Your task to perform on an android device: see sites visited before in the chrome app Image 0: 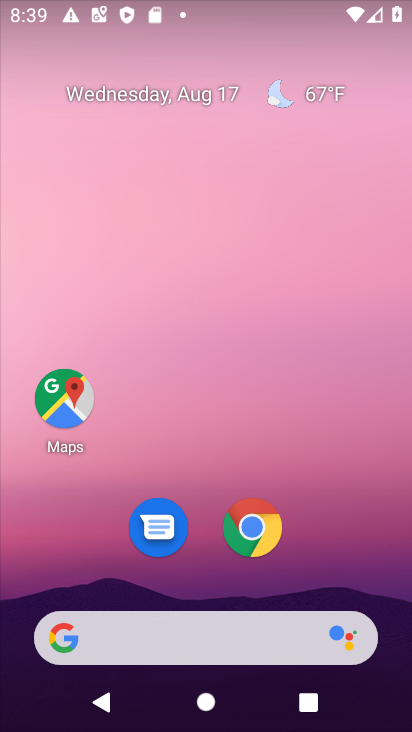
Step 0: click (229, 503)
Your task to perform on an android device: see sites visited before in the chrome app Image 1: 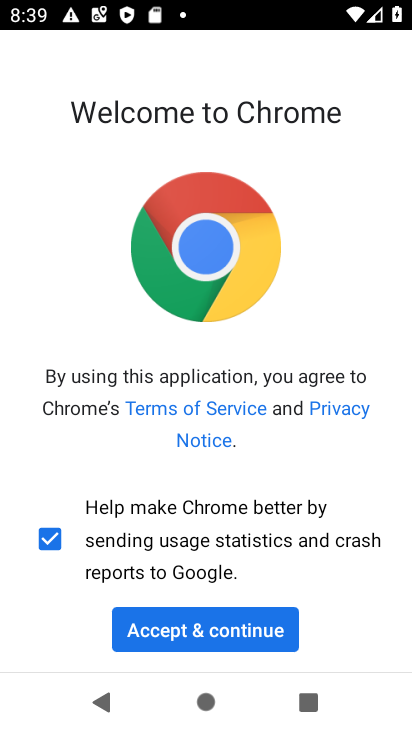
Step 1: click (169, 642)
Your task to perform on an android device: see sites visited before in the chrome app Image 2: 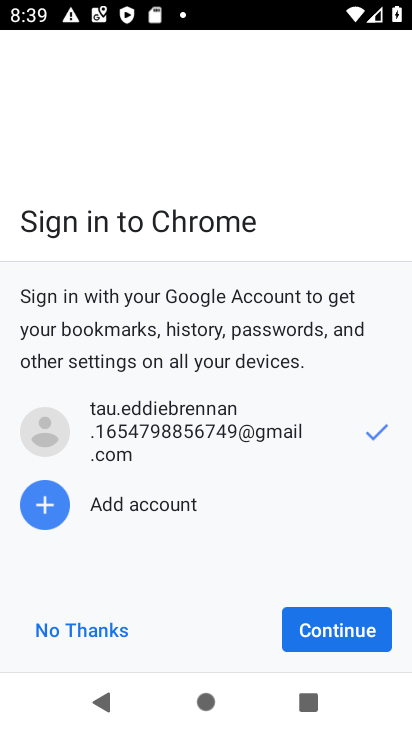
Step 2: click (298, 636)
Your task to perform on an android device: see sites visited before in the chrome app Image 3: 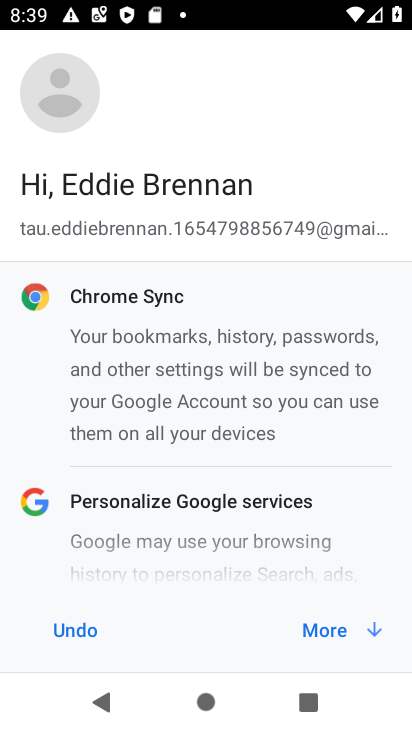
Step 3: click (298, 636)
Your task to perform on an android device: see sites visited before in the chrome app Image 4: 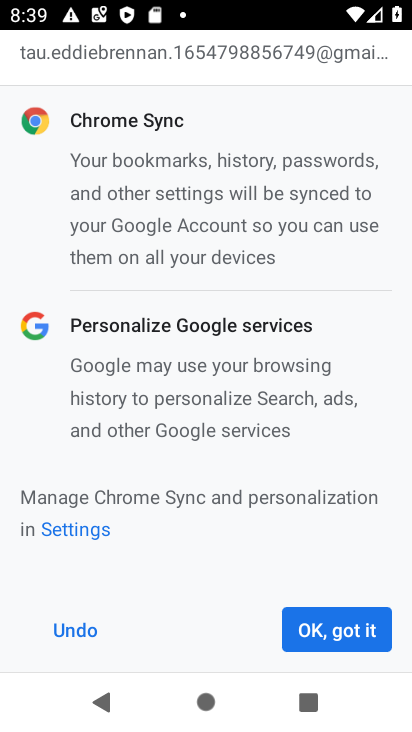
Step 4: click (298, 636)
Your task to perform on an android device: see sites visited before in the chrome app Image 5: 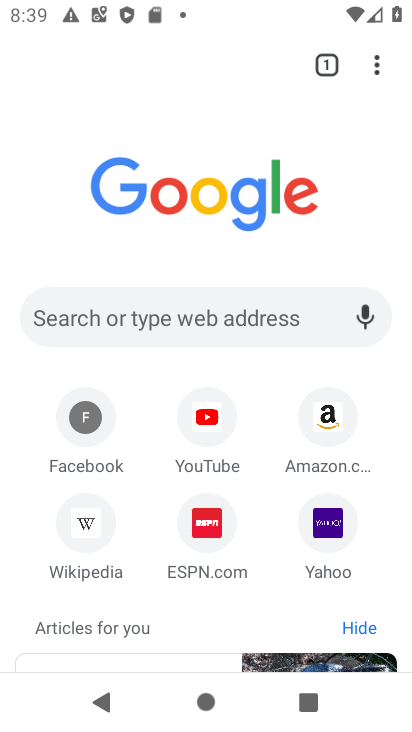
Step 5: click (383, 59)
Your task to perform on an android device: see sites visited before in the chrome app Image 6: 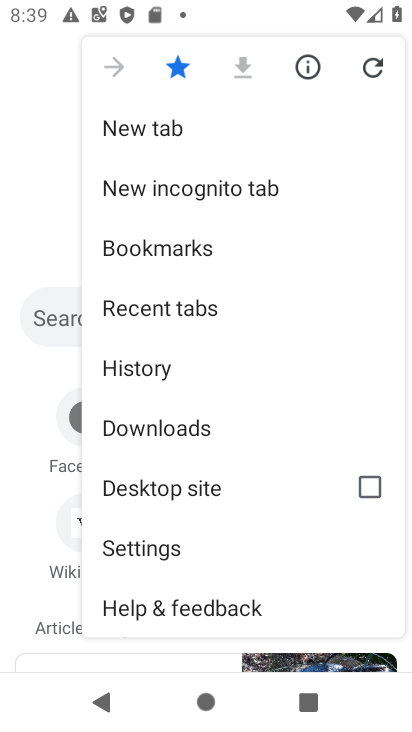
Step 6: click (164, 315)
Your task to perform on an android device: see sites visited before in the chrome app Image 7: 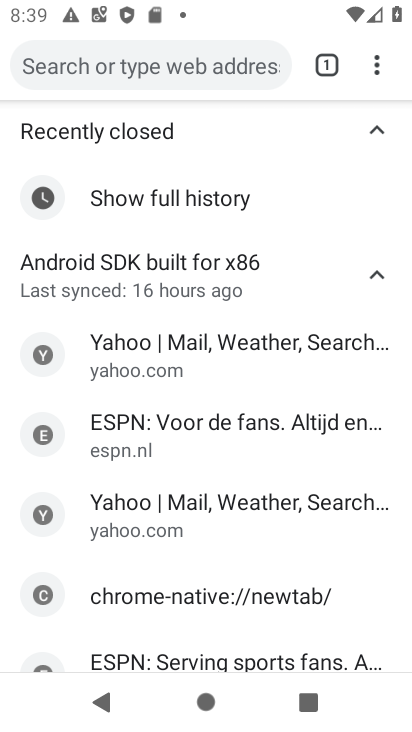
Step 7: task complete